Your task to perform on an android device: Open privacy settings Image 0: 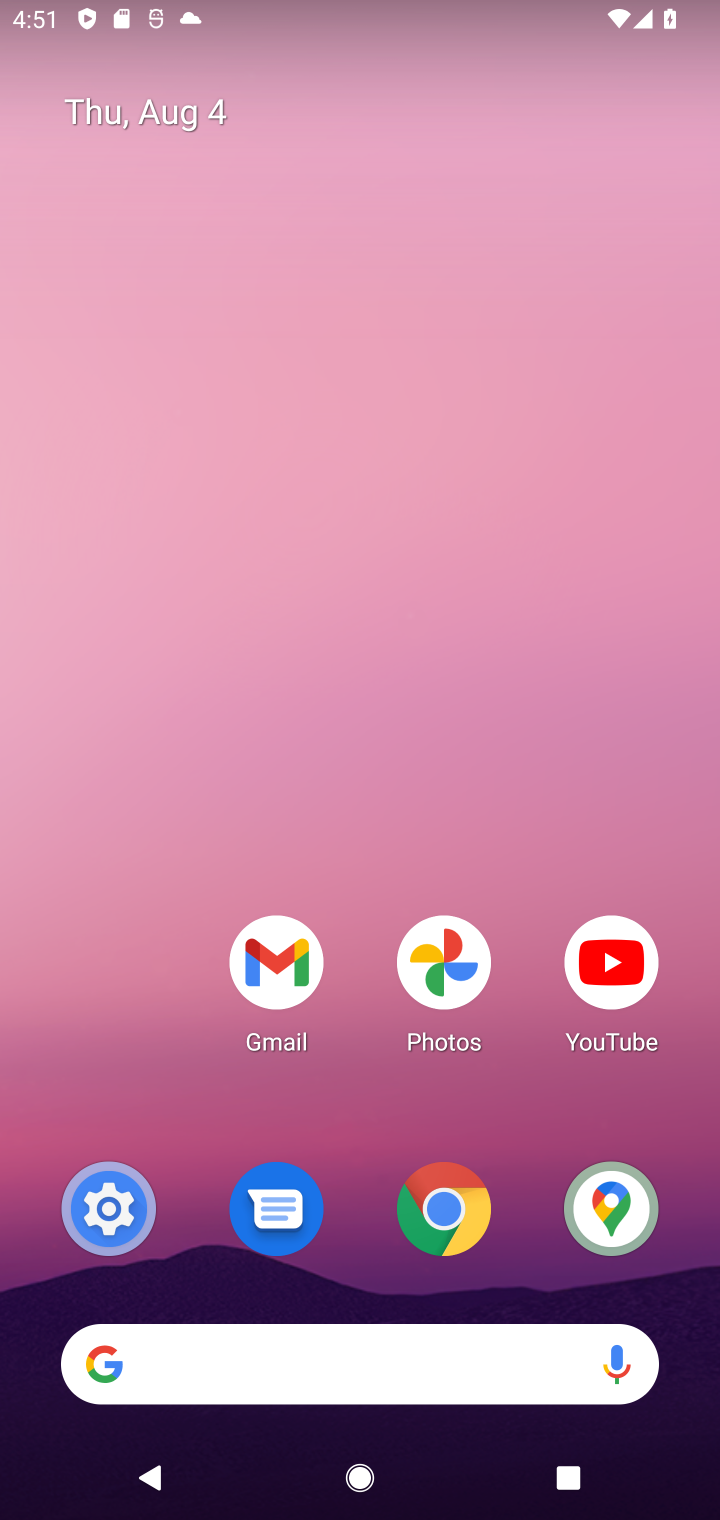
Step 0: click (107, 1210)
Your task to perform on an android device: Open privacy settings Image 1: 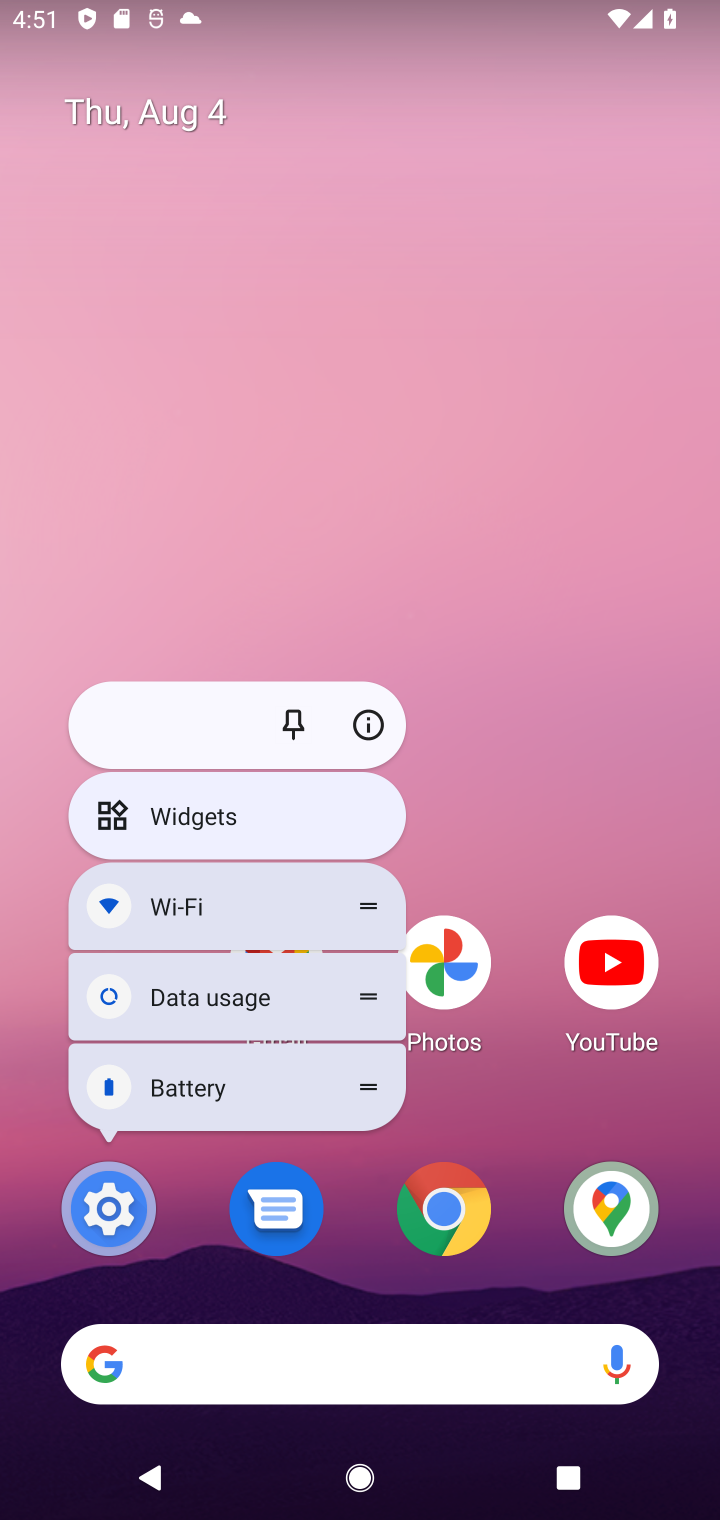
Step 1: click (107, 1224)
Your task to perform on an android device: Open privacy settings Image 2: 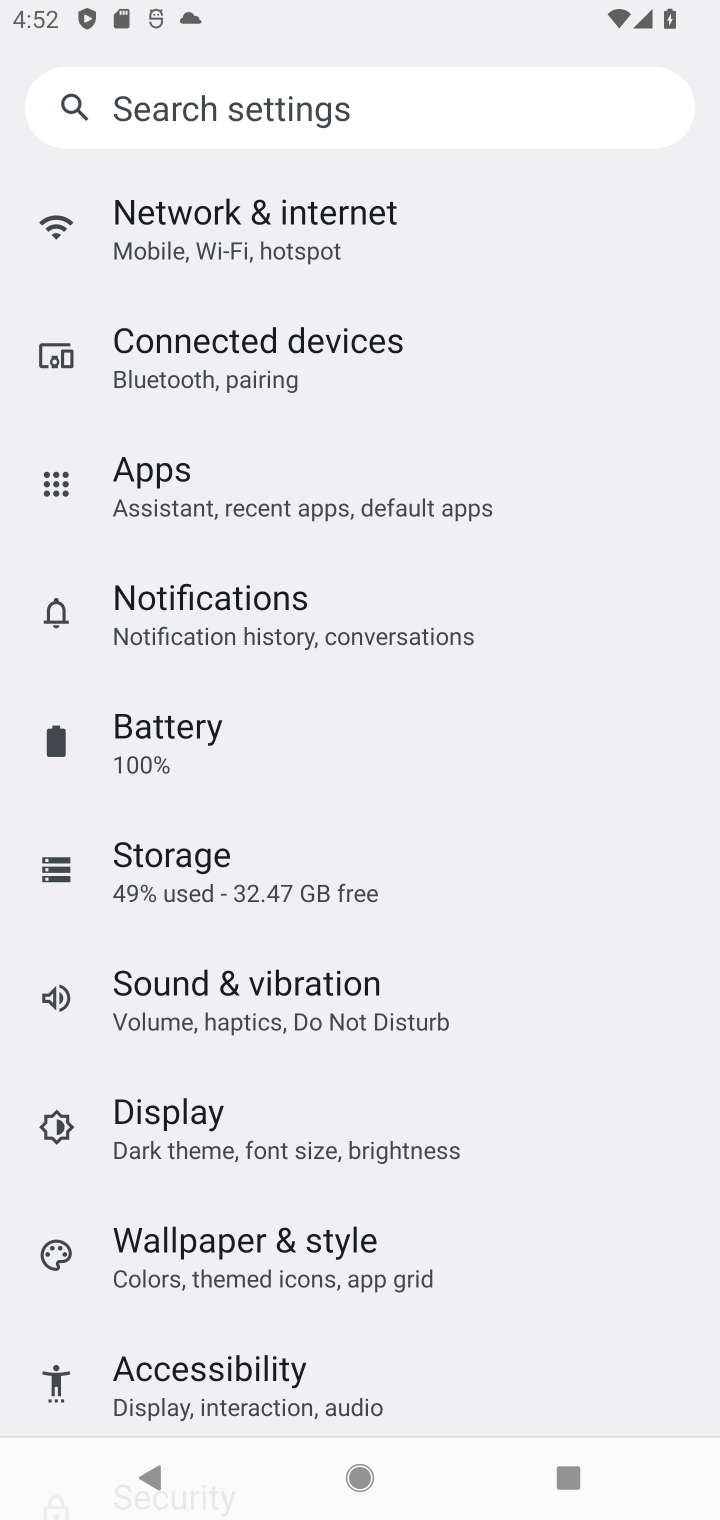
Step 2: drag from (289, 1060) to (327, 551)
Your task to perform on an android device: Open privacy settings Image 3: 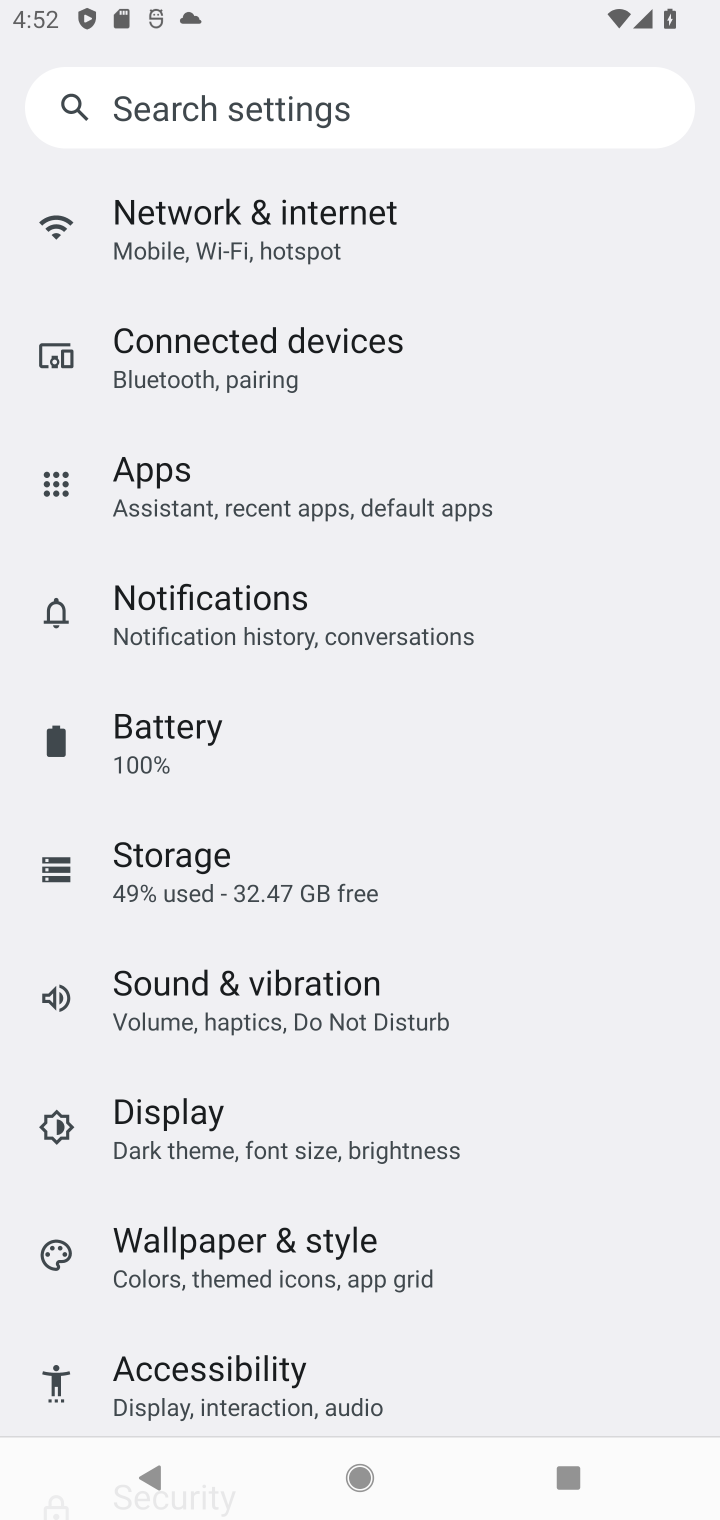
Step 3: drag from (340, 1048) to (373, 505)
Your task to perform on an android device: Open privacy settings Image 4: 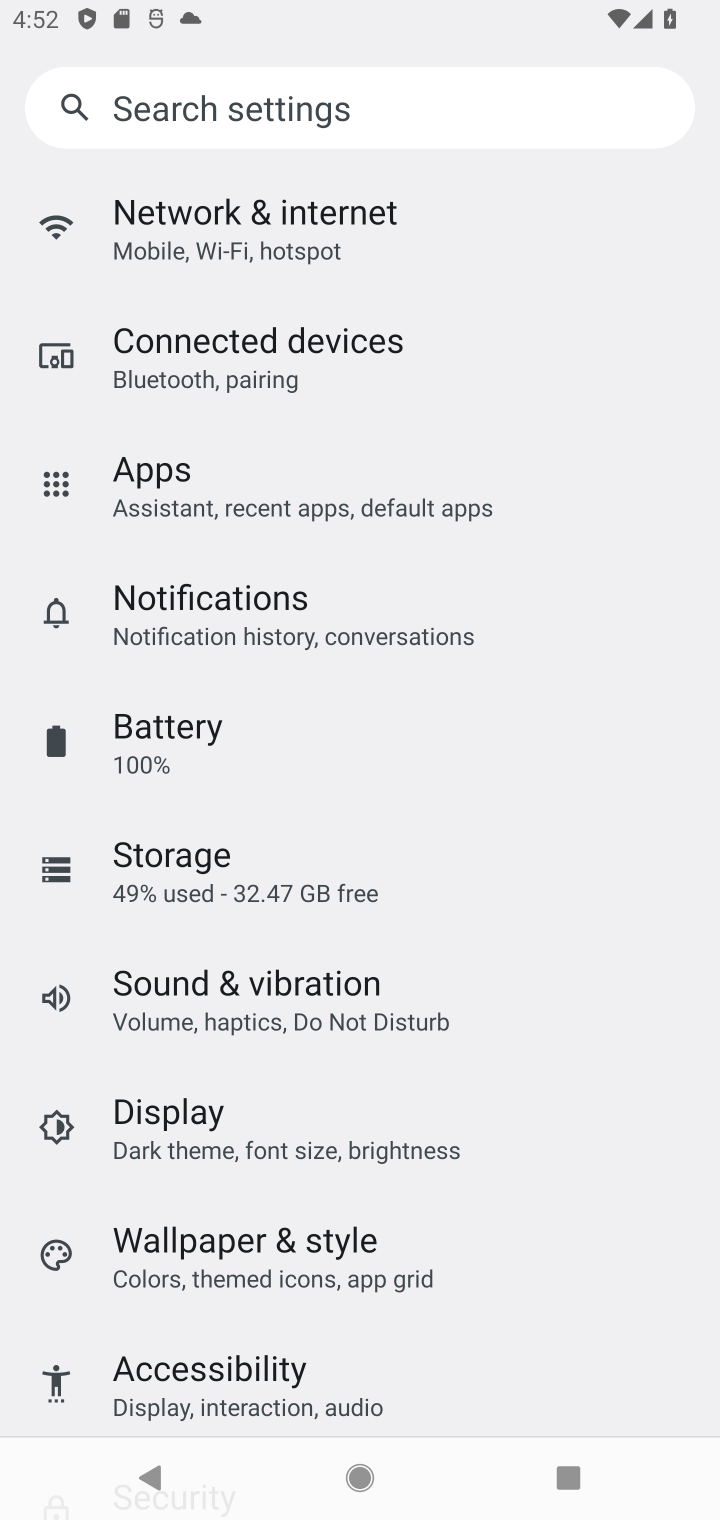
Step 4: drag from (389, 1245) to (427, 821)
Your task to perform on an android device: Open privacy settings Image 5: 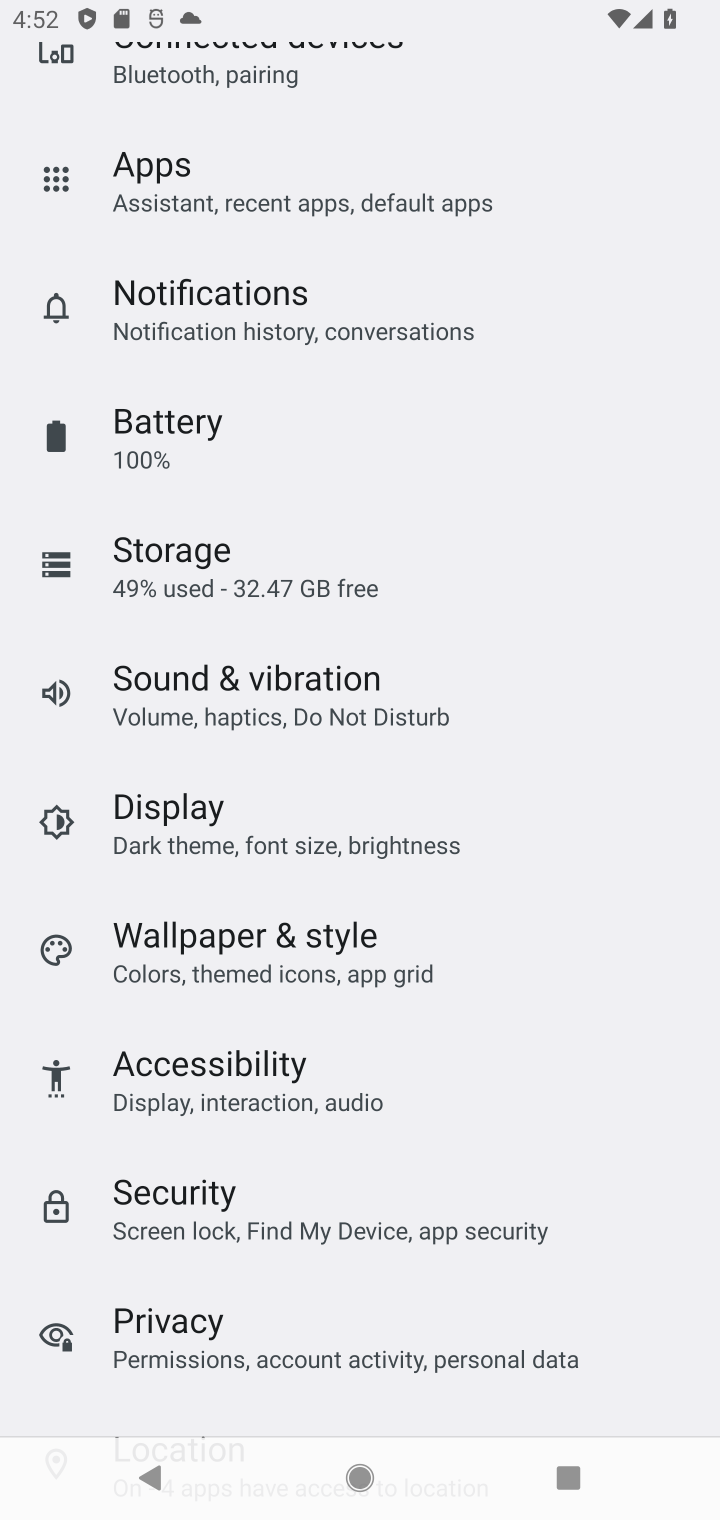
Step 5: click (232, 1329)
Your task to perform on an android device: Open privacy settings Image 6: 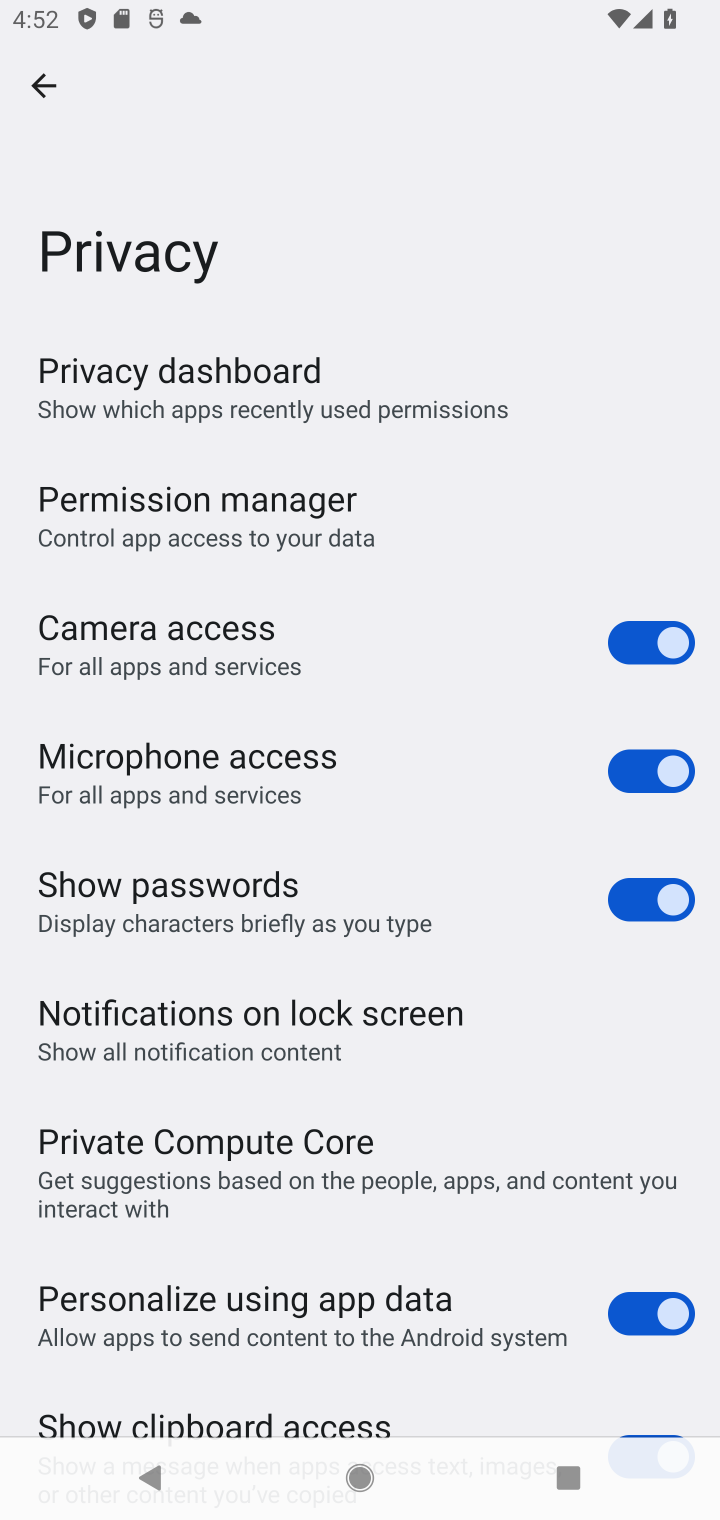
Step 6: task complete